Your task to perform on an android device: choose inbox layout in the gmail app Image 0: 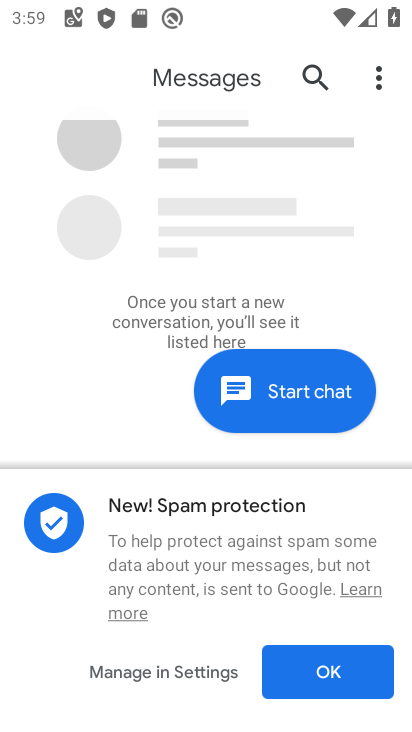
Step 0: press home button
Your task to perform on an android device: choose inbox layout in the gmail app Image 1: 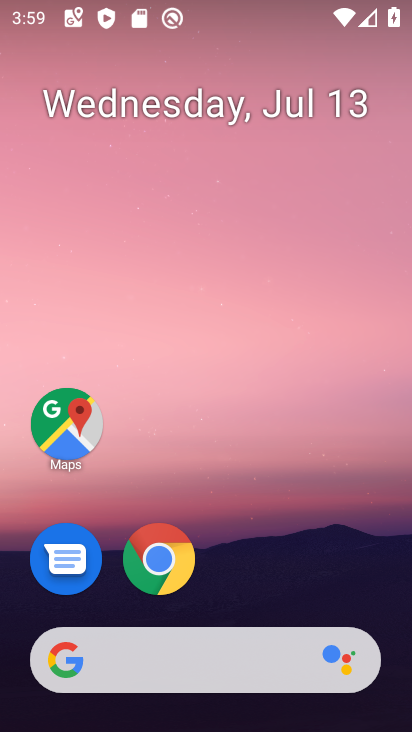
Step 1: drag from (339, 587) to (273, 17)
Your task to perform on an android device: choose inbox layout in the gmail app Image 2: 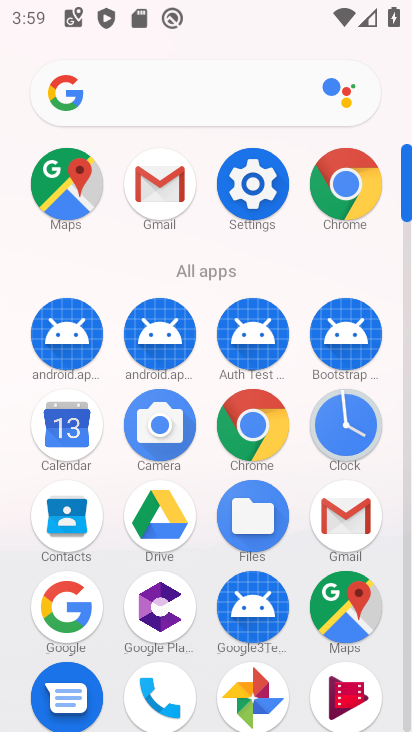
Step 2: click (164, 189)
Your task to perform on an android device: choose inbox layout in the gmail app Image 3: 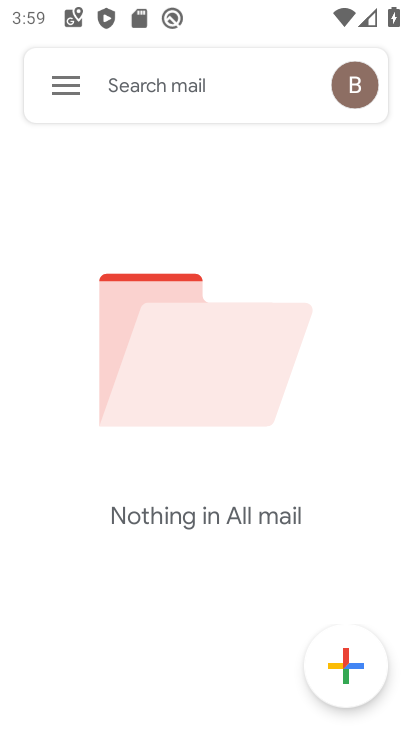
Step 3: click (72, 88)
Your task to perform on an android device: choose inbox layout in the gmail app Image 4: 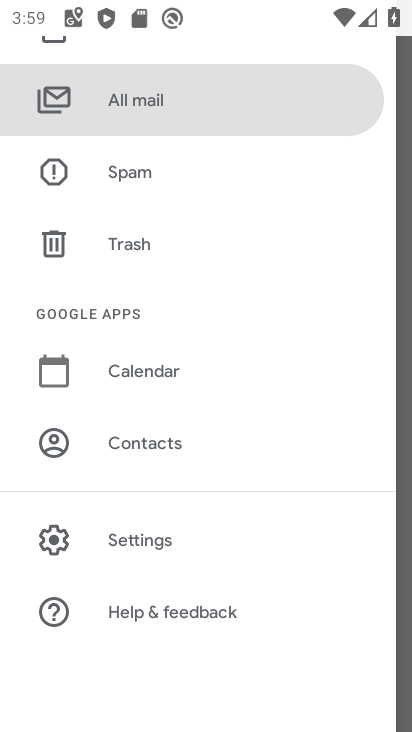
Step 4: click (184, 547)
Your task to perform on an android device: choose inbox layout in the gmail app Image 5: 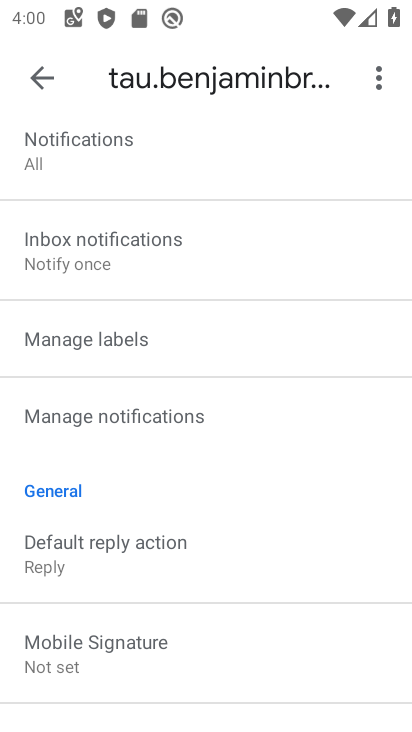
Step 5: drag from (178, 190) to (171, 543)
Your task to perform on an android device: choose inbox layout in the gmail app Image 6: 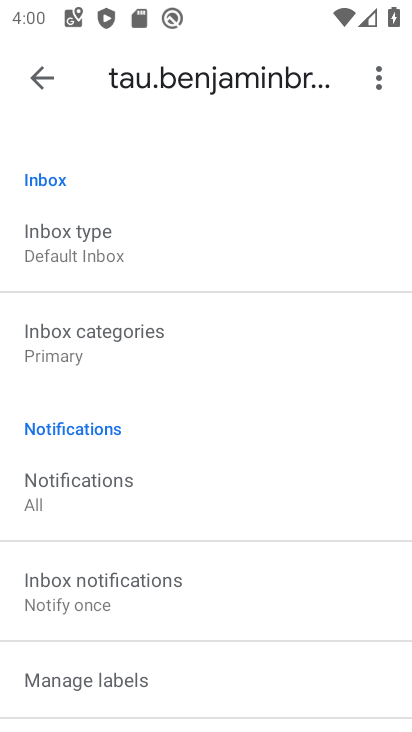
Step 6: click (119, 258)
Your task to perform on an android device: choose inbox layout in the gmail app Image 7: 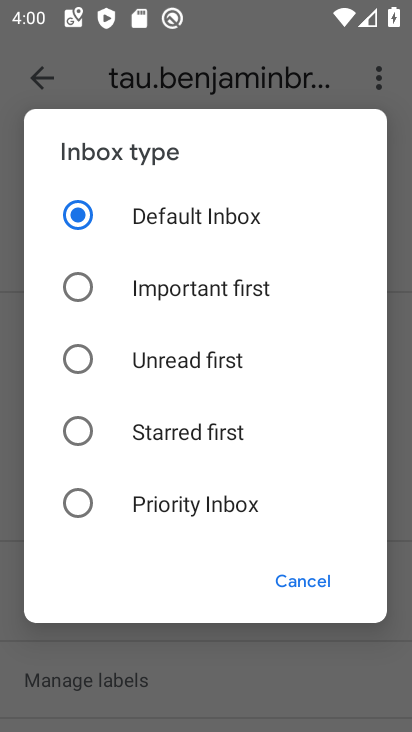
Step 7: click (178, 363)
Your task to perform on an android device: choose inbox layout in the gmail app Image 8: 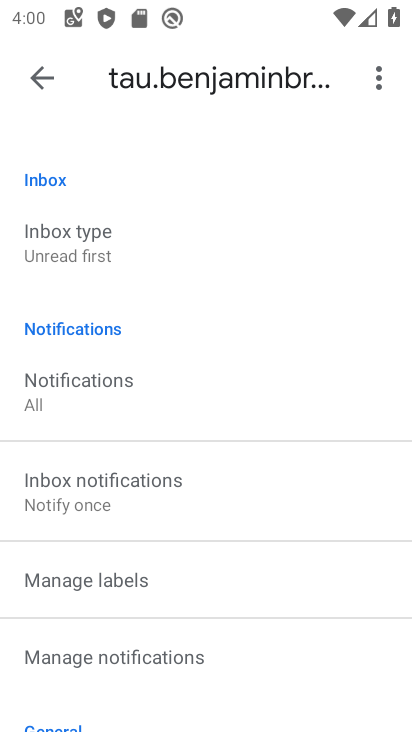
Step 8: task complete